Your task to perform on an android device: Search for Italian restaurants on Maps Image 0: 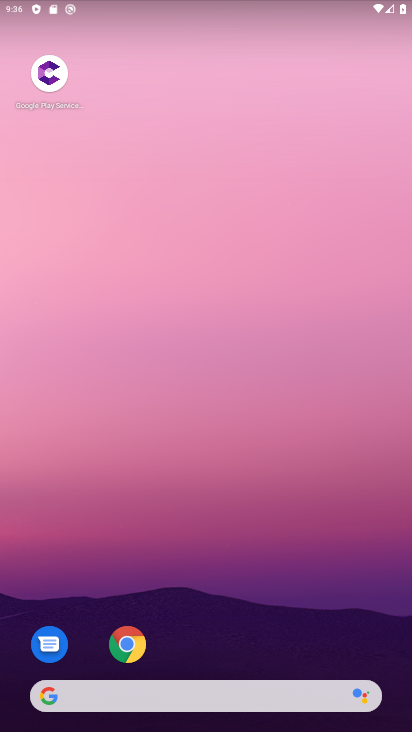
Step 0: drag from (187, 641) to (174, 130)
Your task to perform on an android device: Search for Italian restaurants on Maps Image 1: 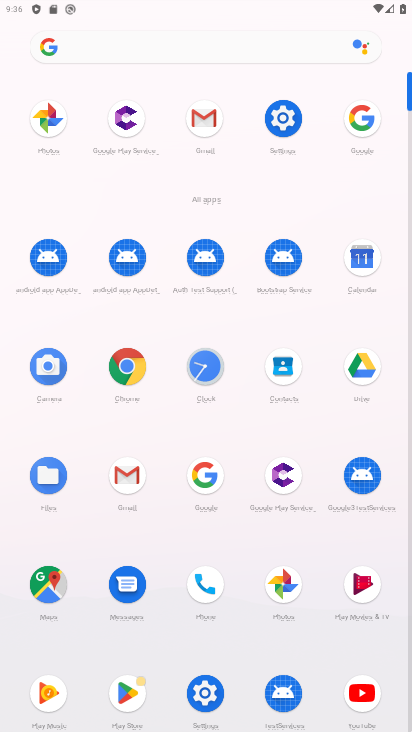
Step 1: click (52, 585)
Your task to perform on an android device: Search for Italian restaurants on Maps Image 2: 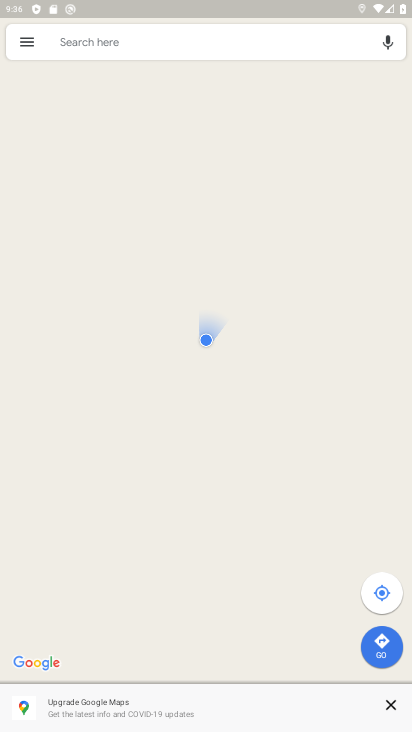
Step 2: click (186, 47)
Your task to perform on an android device: Search for Italian restaurants on Maps Image 3: 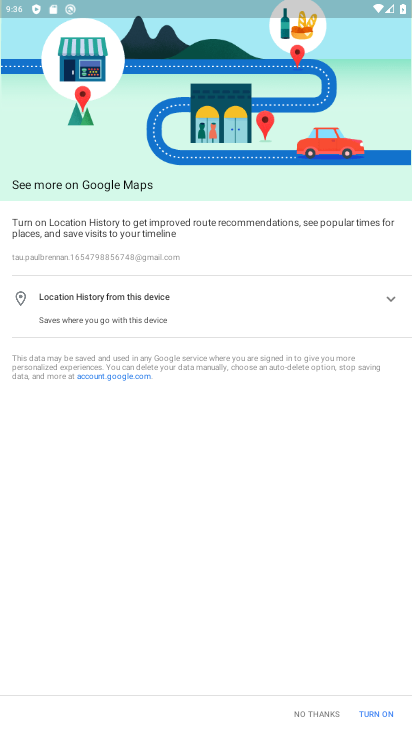
Step 3: click (308, 715)
Your task to perform on an android device: Search for Italian restaurants on Maps Image 4: 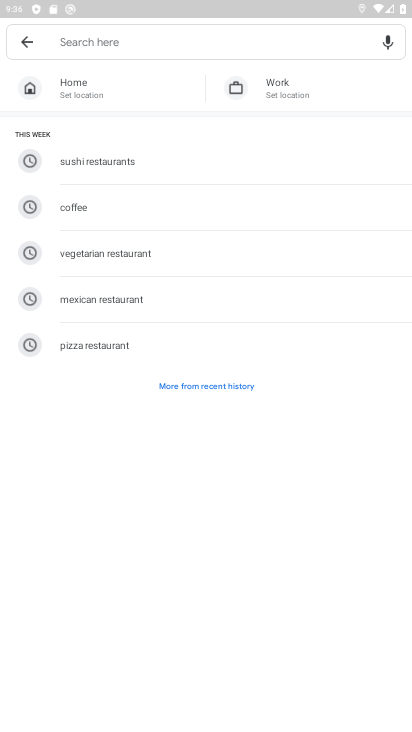
Step 4: click (200, 30)
Your task to perform on an android device: Search for Italian restaurants on Maps Image 5: 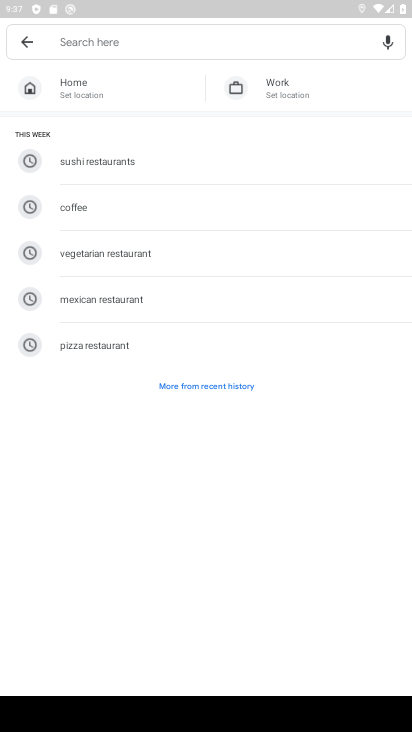
Step 5: type "italian restaurent"
Your task to perform on an android device: Search for Italian restaurants on Maps Image 6: 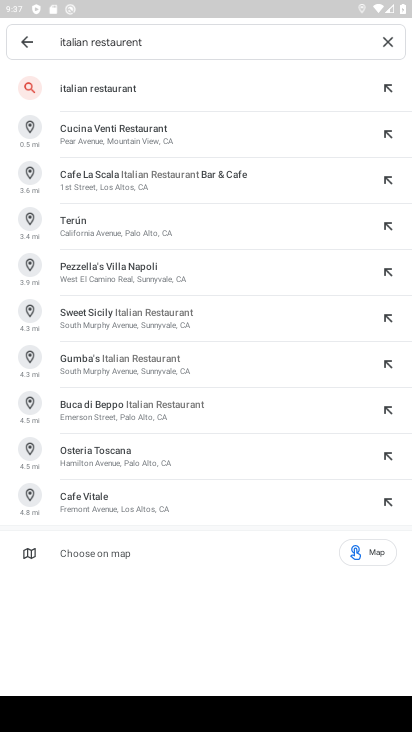
Step 6: click (138, 94)
Your task to perform on an android device: Search for Italian restaurants on Maps Image 7: 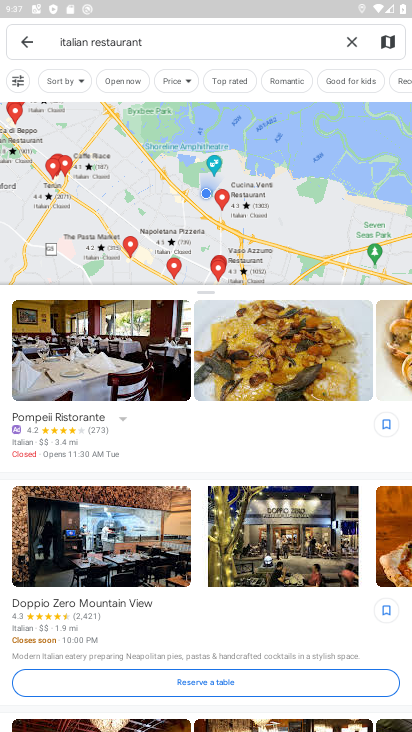
Step 7: task complete